Your task to perform on an android device: Open Youtube and go to "Your channel" Image 0: 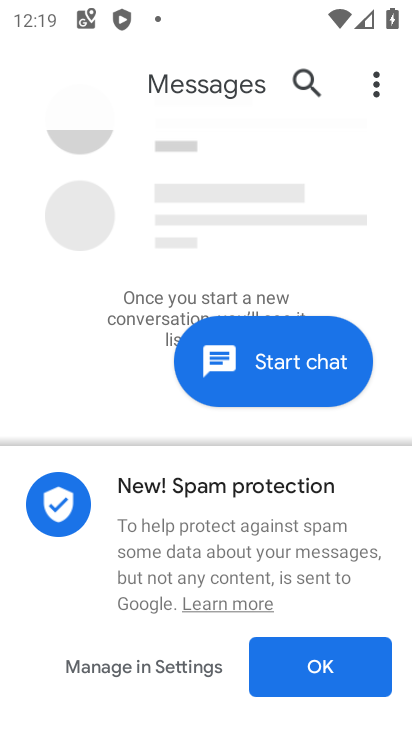
Step 0: press home button
Your task to perform on an android device: Open Youtube and go to "Your channel" Image 1: 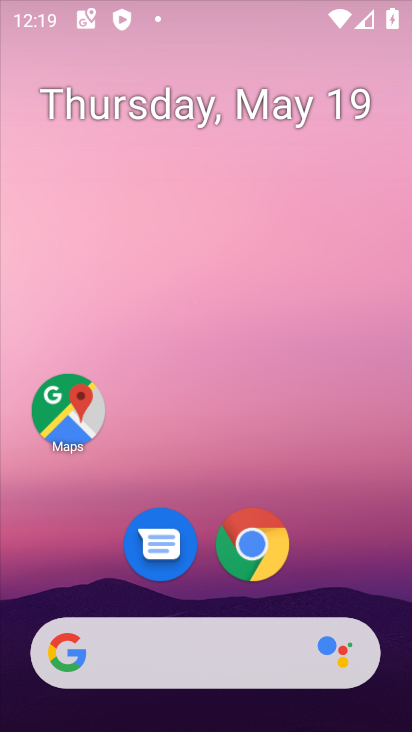
Step 1: drag from (353, 706) to (381, 175)
Your task to perform on an android device: Open Youtube and go to "Your channel" Image 2: 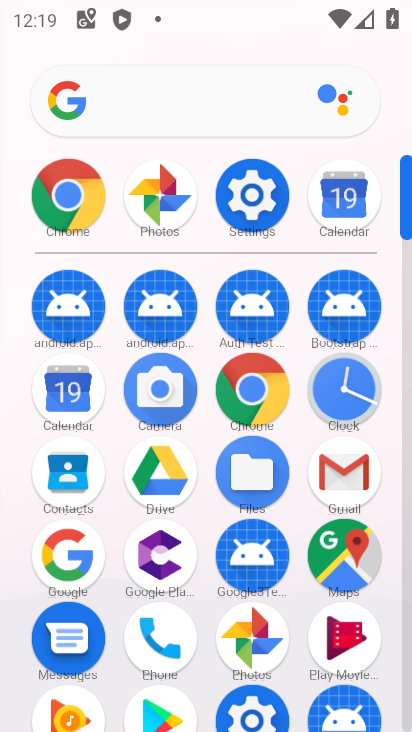
Step 2: drag from (293, 578) to (342, 223)
Your task to perform on an android device: Open Youtube and go to "Your channel" Image 3: 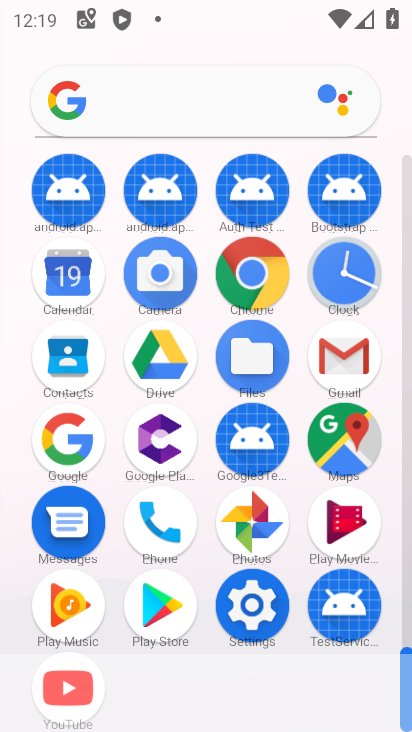
Step 3: click (74, 677)
Your task to perform on an android device: Open Youtube and go to "Your channel" Image 4: 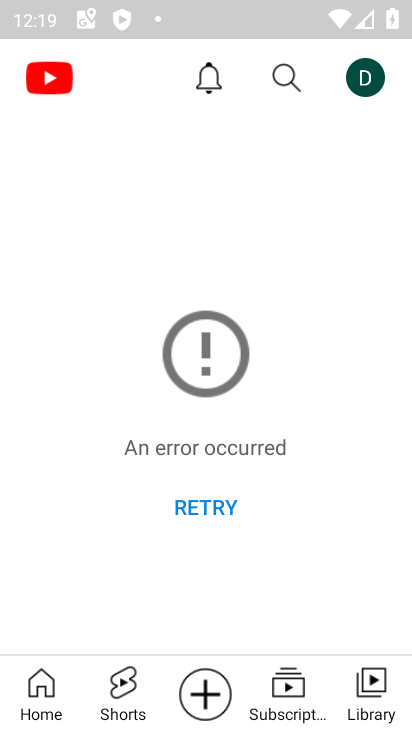
Step 4: click (367, 74)
Your task to perform on an android device: Open Youtube and go to "Your channel" Image 5: 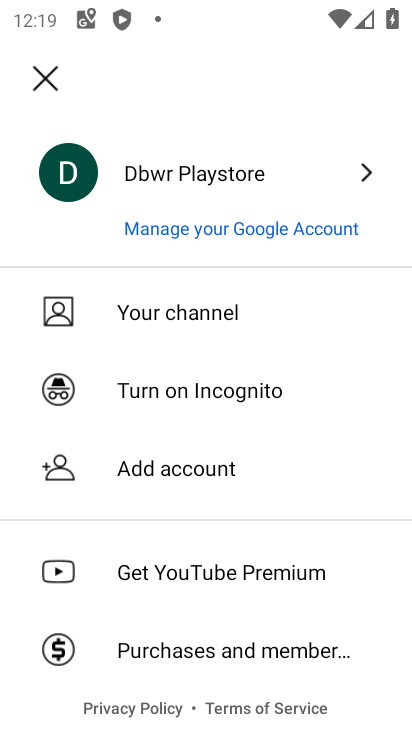
Step 5: click (229, 305)
Your task to perform on an android device: Open Youtube and go to "Your channel" Image 6: 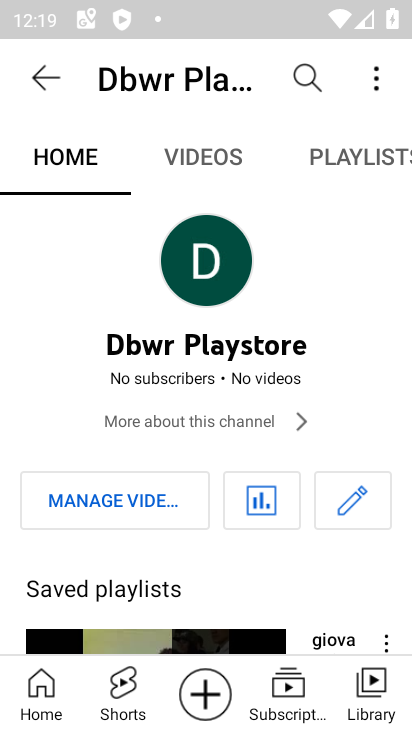
Step 6: task complete